Your task to perform on an android device: toggle show notifications on the lock screen Image 0: 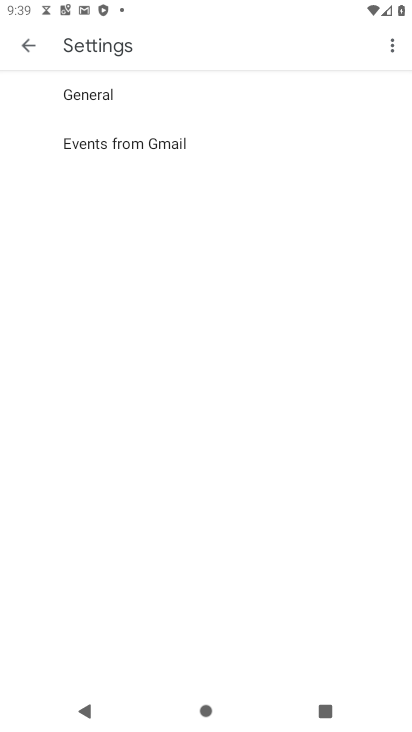
Step 0: press home button
Your task to perform on an android device: toggle show notifications on the lock screen Image 1: 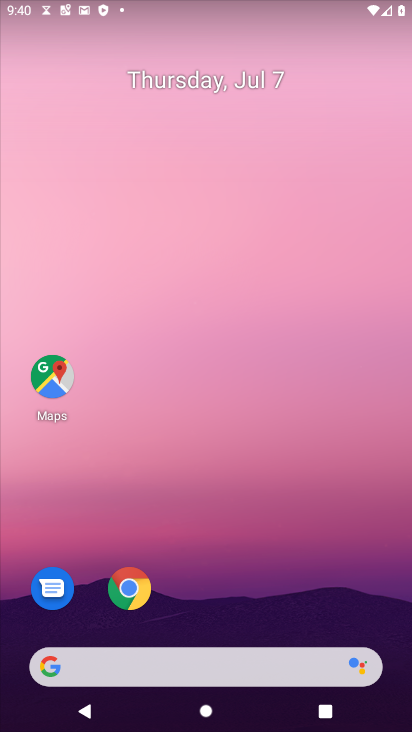
Step 1: drag from (166, 633) to (169, 183)
Your task to perform on an android device: toggle show notifications on the lock screen Image 2: 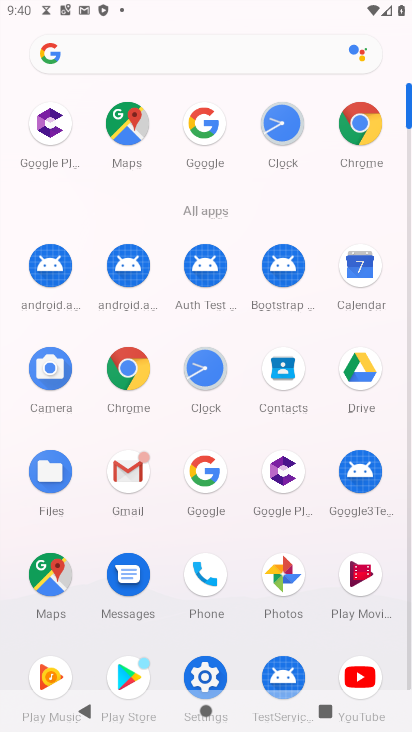
Step 2: click (201, 671)
Your task to perform on an android device: toggle show notifications on the lock screen Image 3: 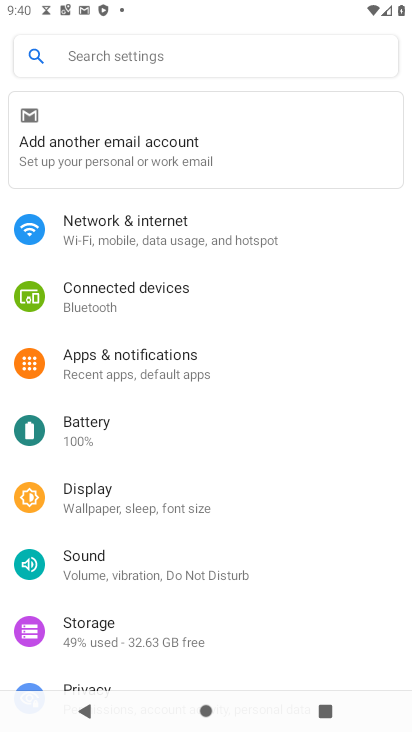
Step 3: drag from (168, 635) to (215, 471)
Your task to perform on an android device: toggle show notifications on the lock screen Image 4: 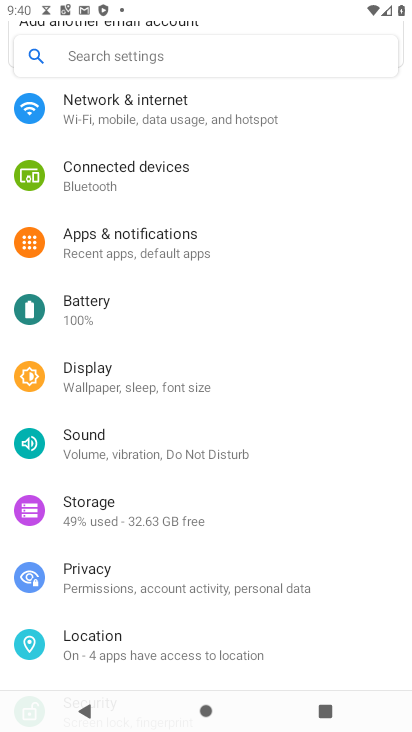
Step 4: click (163, 253)
Your task to perform on an android device: toggle show notifications on the lock screen Image 5: 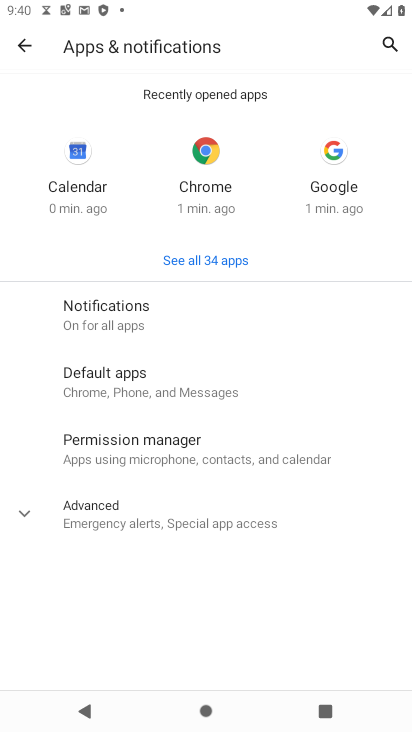
Step 5: click (114, 307)
Your task to perform on an android device: toggle show notifications on the lock screen Image 6: 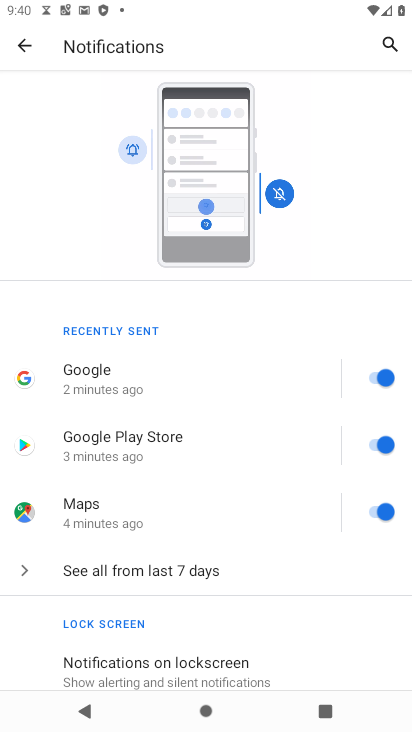
Step 6: click (166, 670)
Your task to perform on an android device: toggle show notifications on the lock screen Image 7: 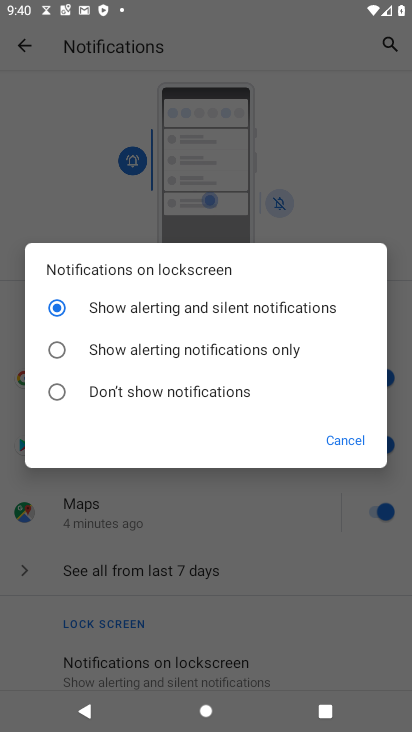
Step 7: click (166, 392)
Your task to perform on an android device: toggle show notifications on the lock screen Image 8: 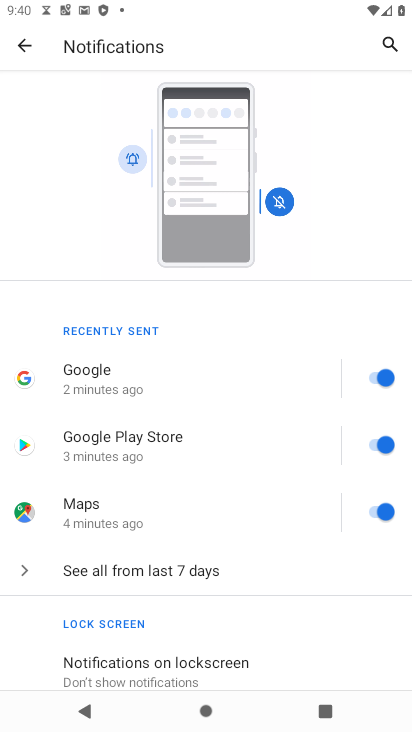
Step 8: task complete